Your task to perform on an android device: turn on showing notifications on the lock screen Image 0: 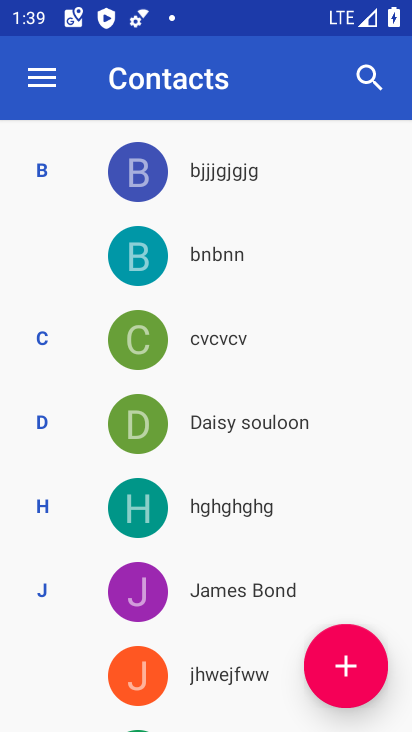
Step 0: press home button
Your task to perform on an android device: turn on showing notifications on the lock screen Image 1: 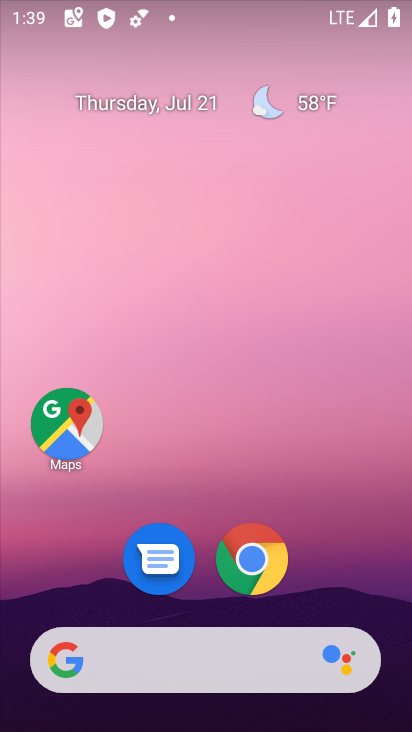
Step 1: drag from (358, 562) to (389, 122)
Your task to perform on an android device: turn on showing notifications on the lock screen Image 2: 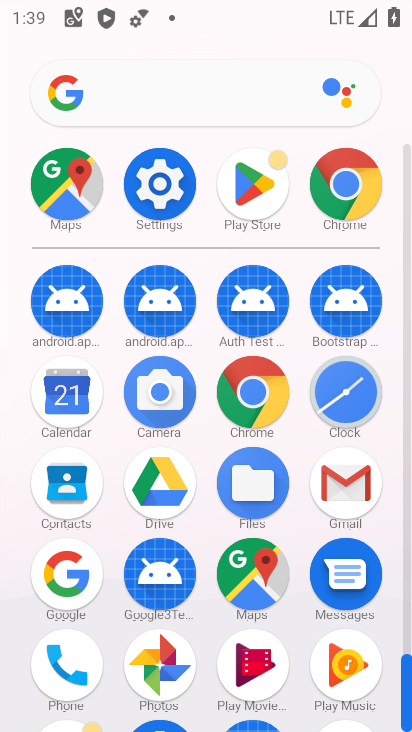
Step 2: click (167, 198)
Your task to perform on an android device: turn on showing notifications on the lock screen Image 3: 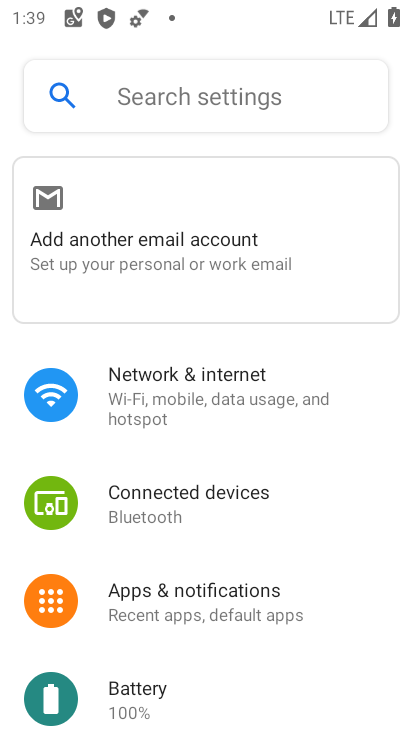
Step 3: drag from (351, 497) to (353, 418)
Your task to perform on an android device: turn on showing notifications on the lock screen Image 4: 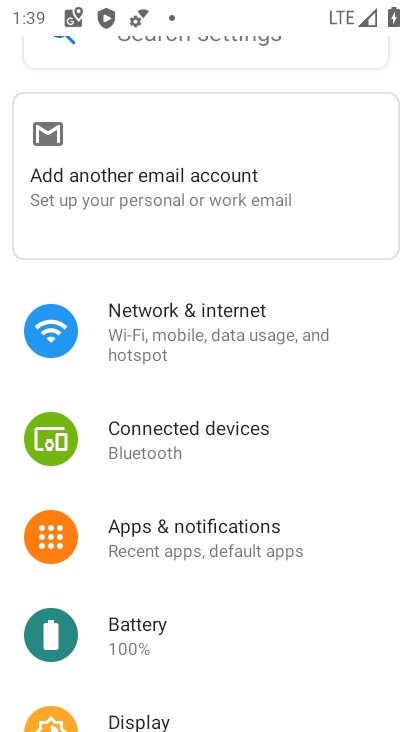
Step 4: drag from (349, 497) to (347, 416)
Your task to perform on an android device: turn on showing notifications on the lock screen Image 5: 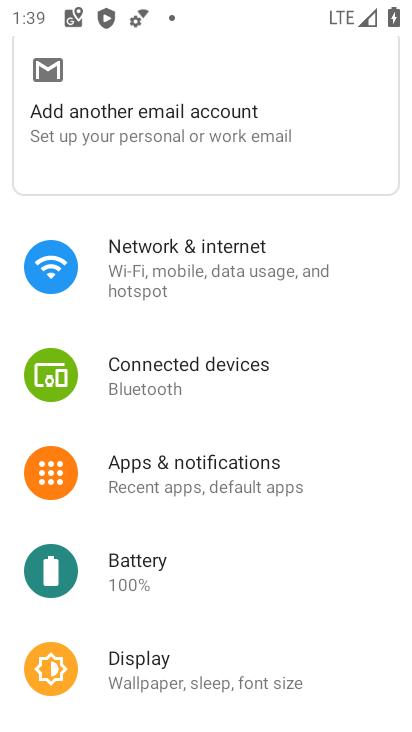
Step 5: drag from (346, 510) to (352, 429)
Your task to perform on an android device: turn on showing notifications on the lock screen Image 6: 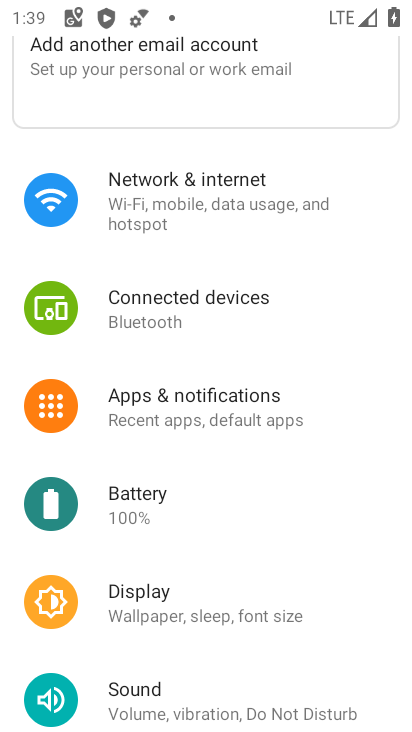
Step 6: drag from (339, 525) to (340, 447)
Your task to perform on an android device: turn on showing notifications on the lock screen Image 7: 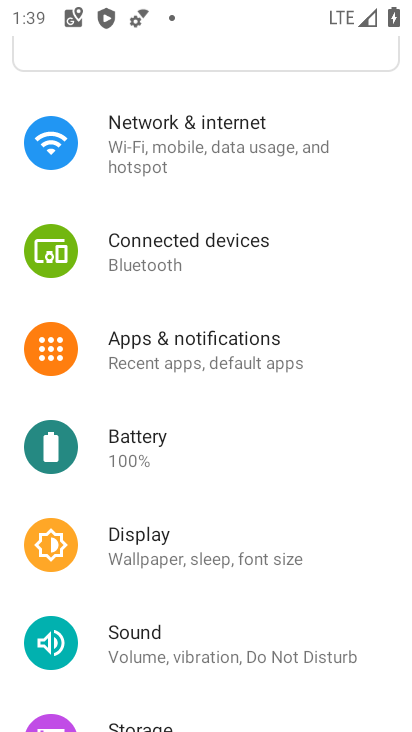
Step 7: drag from (332, 549) to (336, 463)
Your task to perform on an android device: turn on showing notifications on the lock screen Image 8: 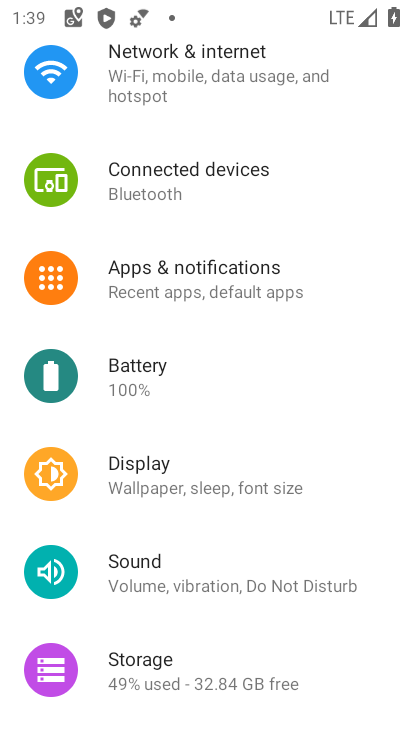
Step 8: drag from (332, 528) to (335, 440)
Your task to perform on an android device: turn on showing notifications on the lock screen Image 9: 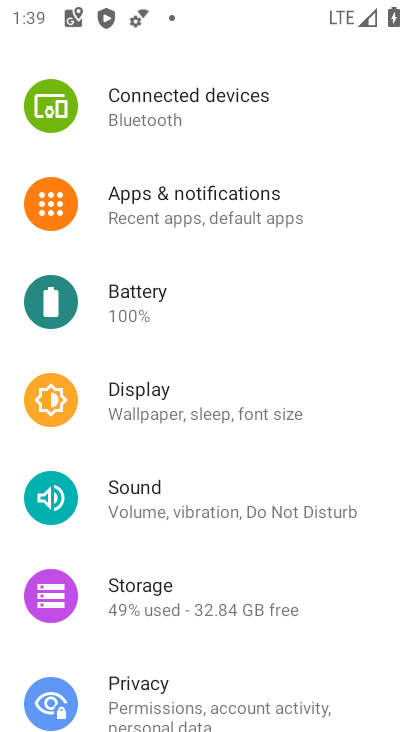
Step 9: drag from (316, 473) to (326, 394)
Your task to perform on an android device: turn on showing notifications on the lock screen Image 10: 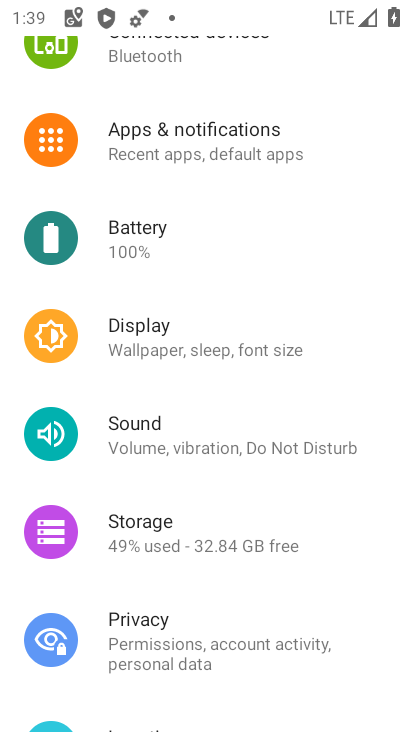
Step 10: drag from (342, 535) to (351, 440)
Your task to perform on an android device: turn on showing notifications on the lock screen Image 11: 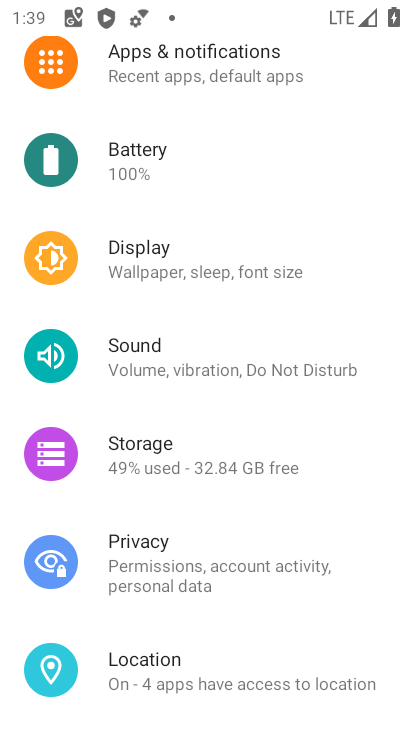
Step 11: drag from (362, 565) to (356, 476)
Your task to perform on an android device: turn on showing notifications on the lock screen Image 12: 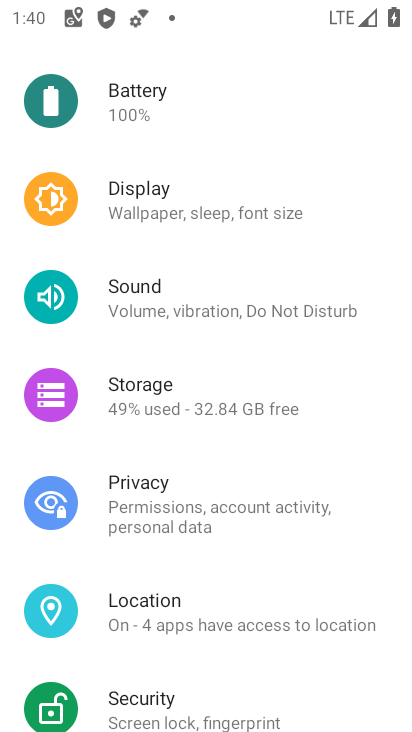
Step 12: drag from (355, 370) to (358, 434)
Your task to perform on an android device: turn on showing notifications on the lock screen Image 13: 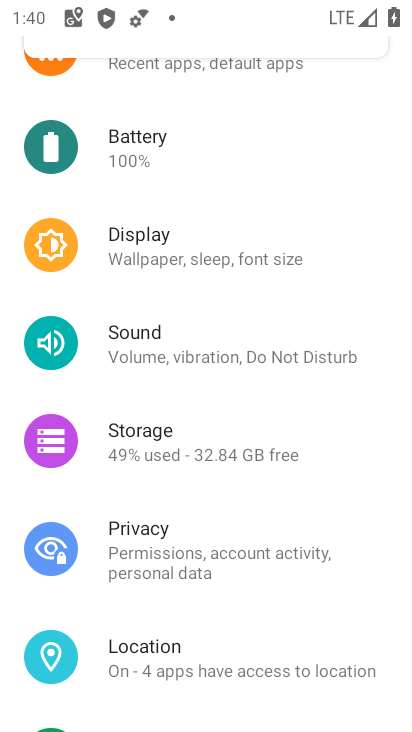
Step 13: drag from (369, 363) to (367, 423)
Your task to perform on an android device: turn on showing notifications on the lock screen Image 14: 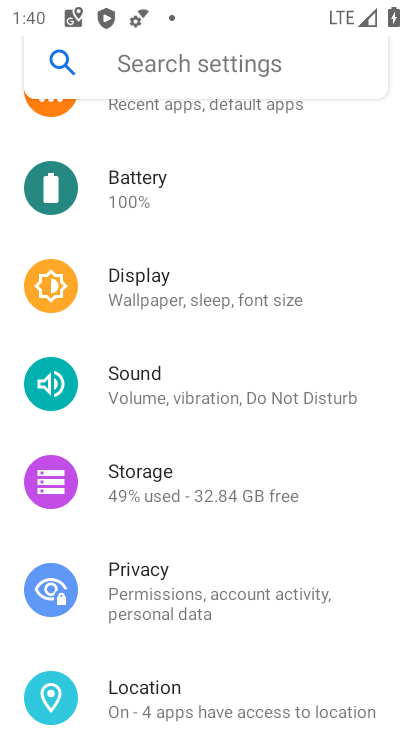
Step 14: drag from (367, 329) to (376, 406)
Your task to perform on an android device: turn on showing notifications on the lock screen Image 15: 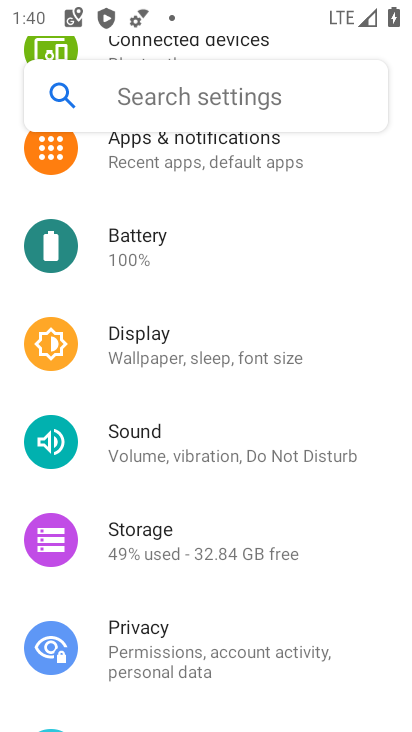
Step 15: drag from (372, 317) to (367, 394)
Your task to perform on an android device: turn on showing notifications on the lock screen Image 16: 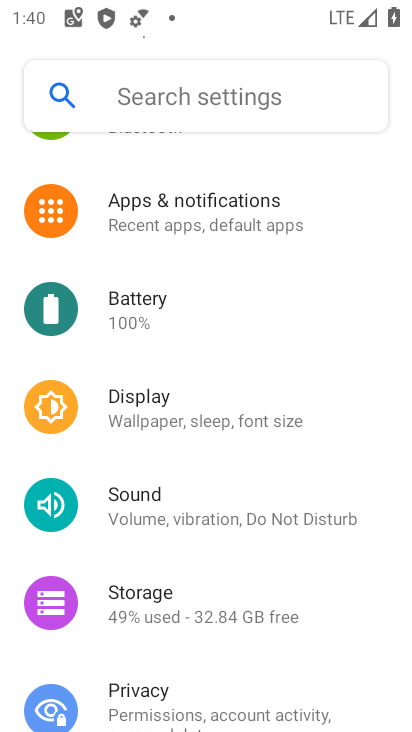
Step 16: drag from (363, 300) to (361, 372)
Your task to perform on an android device: turn on showing notifications on the lock screen Image 17: 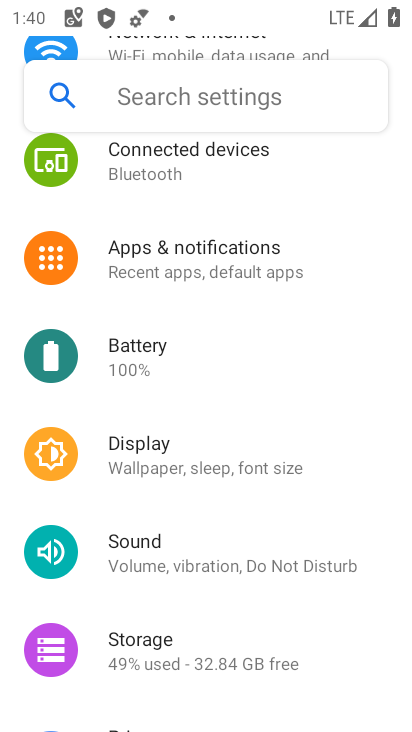
Step 17: drag from (351, 309) to (347, 382)
Your task to perform on an android device: turn on showing notifications on the lock screen Image 18: 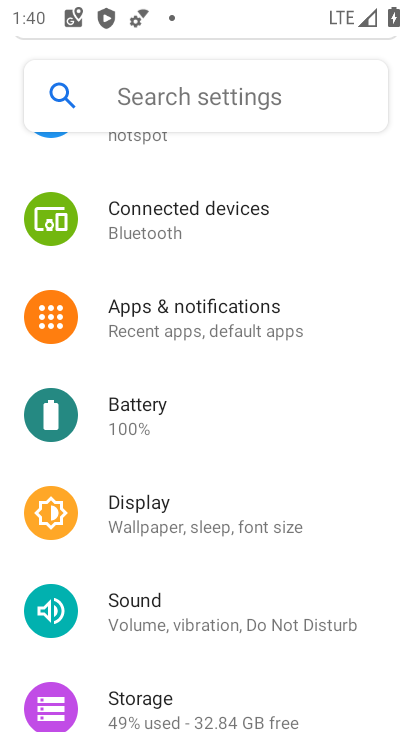
Step 18: click (335, 330)
Your task to perform on an android device: turn on showing notifications on the lock screen Image 19: 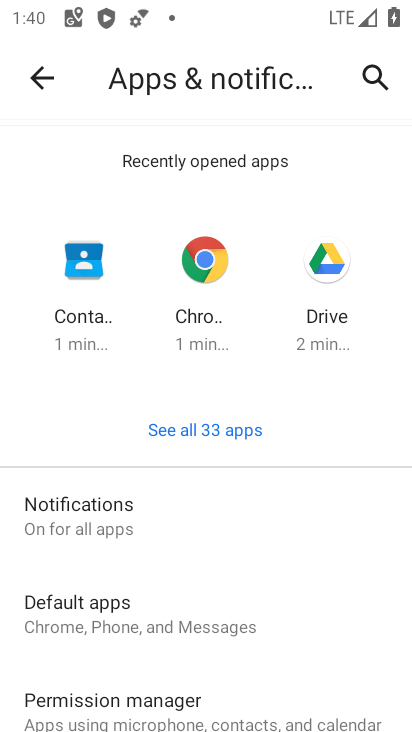
Step 19: click (258, 518)
Your task to perform on an android device: turn on showing notifications on the lock screen Image 20: 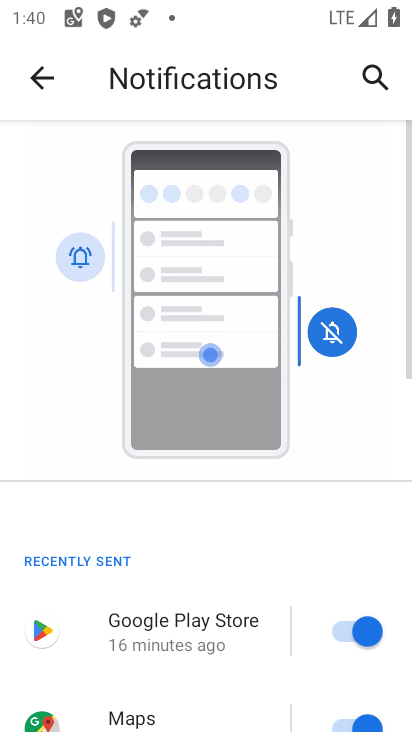
Step 20: drag from (259, 535) to (241, 450)
Your task to perform on an android device: turn on showing notifications on the lock screen Image 21: 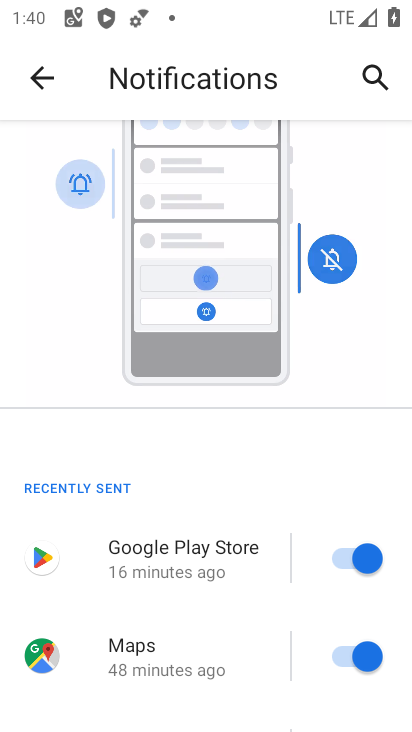
Step 21: drag from (259, 548) to (263, 455)
Your task to perform on an android device: turn on showing notifications on the lock screen Image 22: 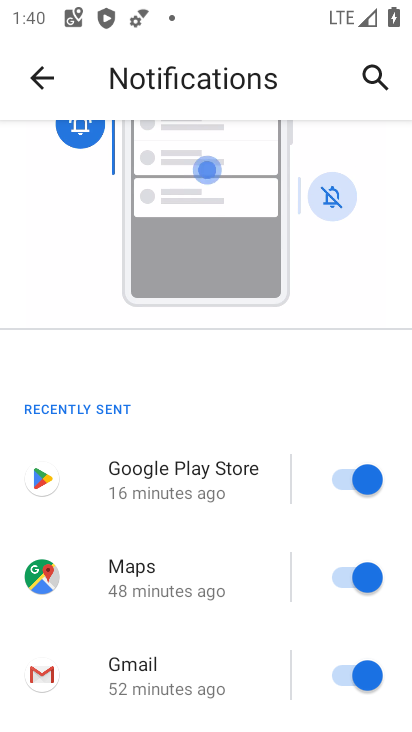
Step 22: drag from (256, 560) to (257, 448)
Your task to perform on an android device: turn on showing notifications on the lock screen Image 23: 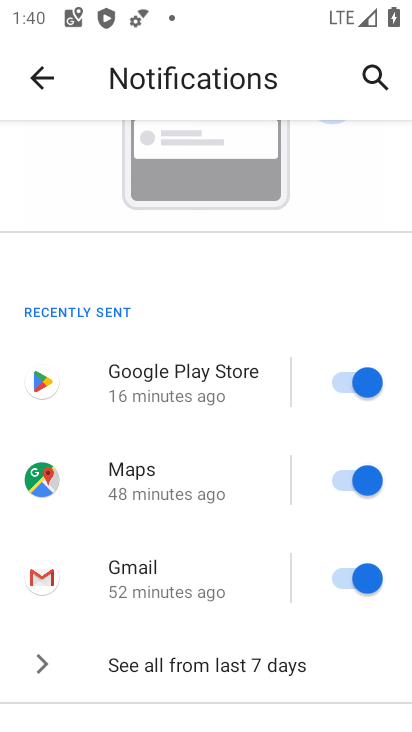
Step 23: drag from (249, 556) to (245, 465)
Your task to perform on an android device: turn on showing notifications on the lock screen Image 24: 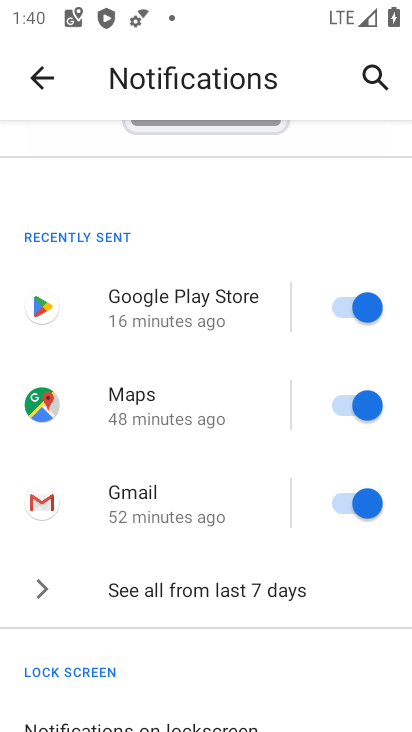
Step 24: drag from (250, 618) to (244, 537)
Your task to perform on an android device: turn on showing notifications on the lock screen Image 25: 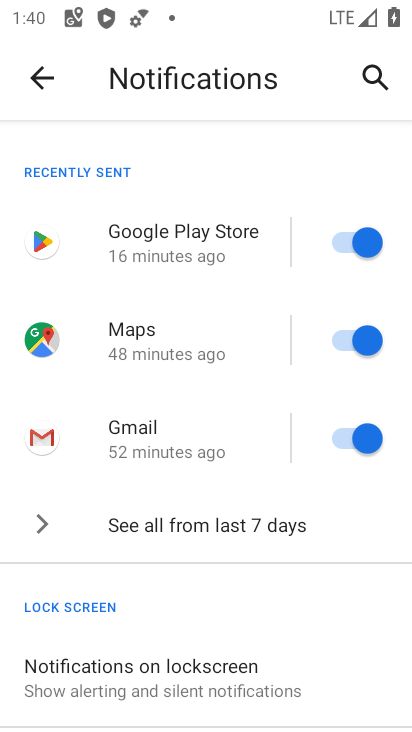
Step 25: drag from (259, 610) to (260, 493)
Your task to perform on an android device: turn on showing notifications on the lock screen Image 26: 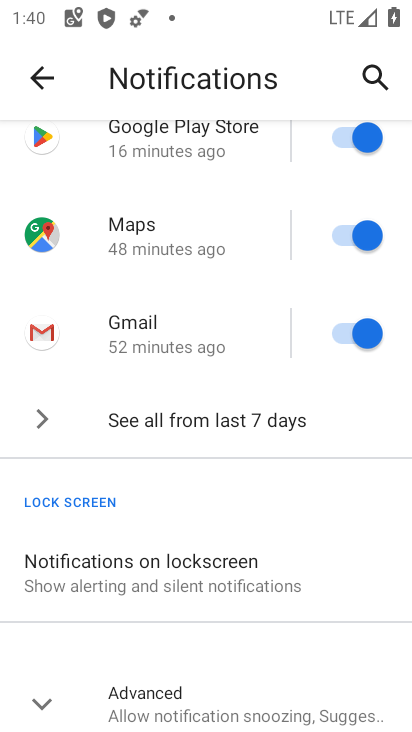
Step 26: click (238, 533)
Your task to perform on an android device: turn on showing notifications on the lock screen Image 27: 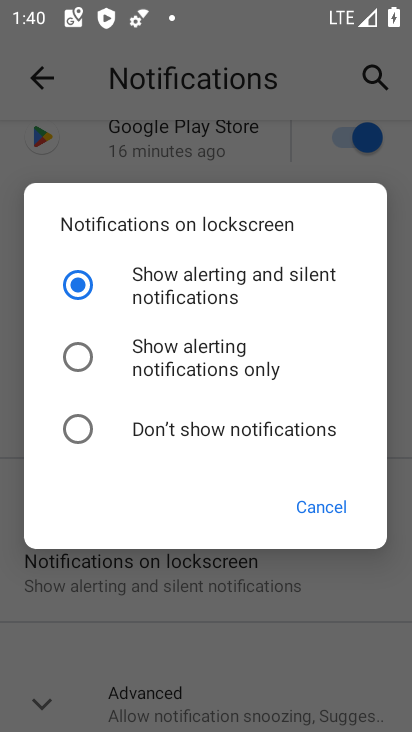
Step 27: task complete